Your task to perform on an android device: Open wifi settings Image 0: 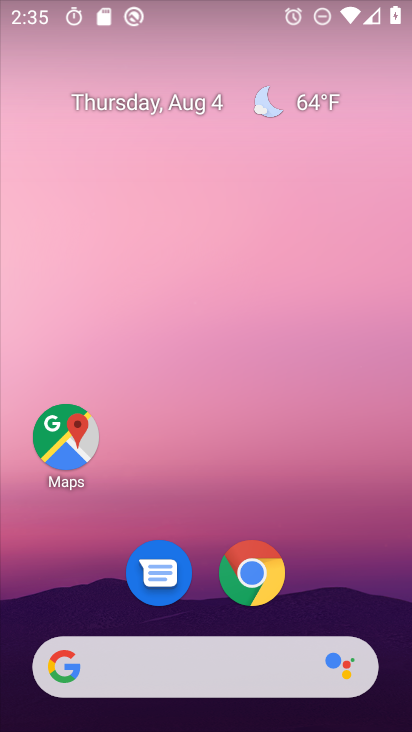
Step 0: drag from (359, 579) to (344, 64)
Your task to perform on an android device: Open wifi settings Image 1: 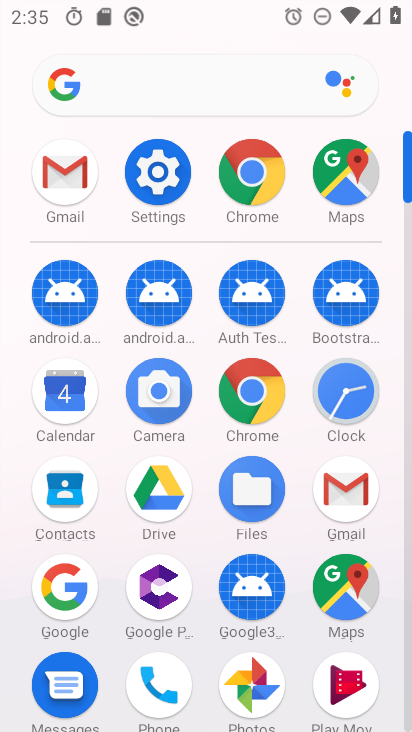
Step 1: click (158, 155)
Your task to perform on an android device: Open wifi settings Image 2: 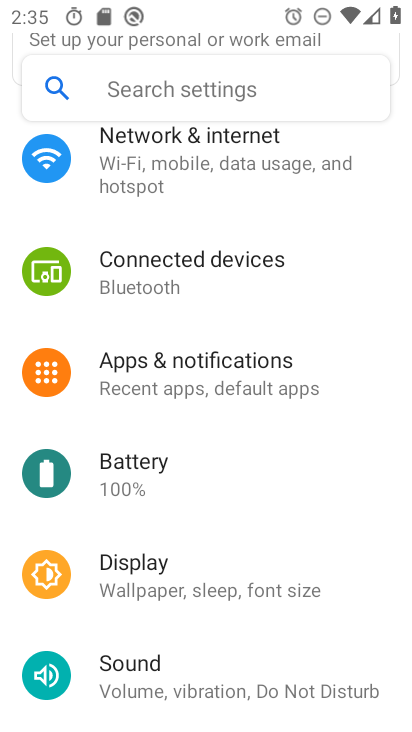
Step 2: click (158, 155)
Your task to perform on an android device: Open wifi settings Image 3: 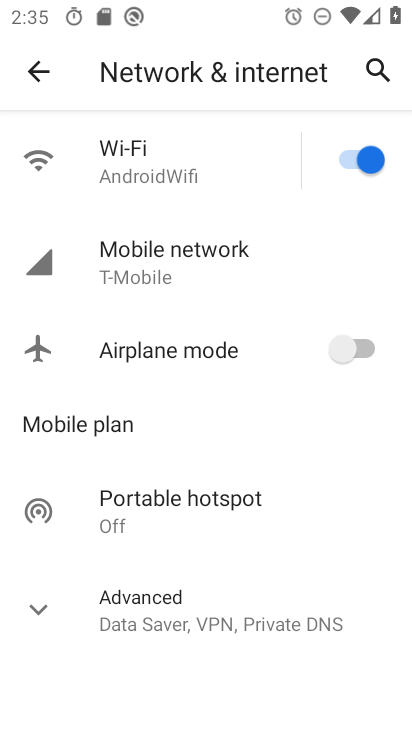
Step 3: click (217, 168)
Your task to perform on an android device: Open wifi settings Image 4: 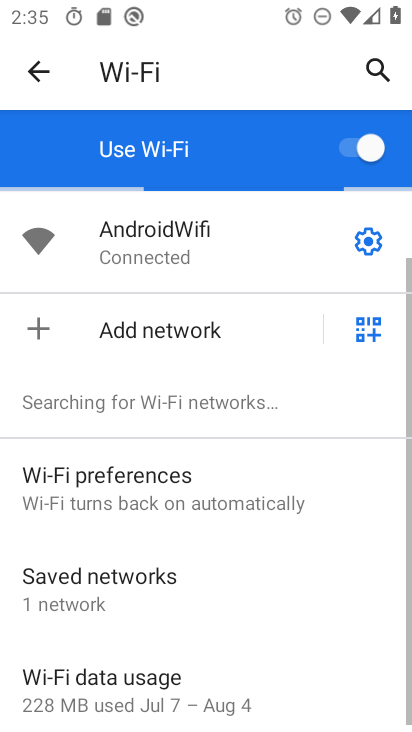
Step 4: click (370, 238)
Your task to perform on an android device: Open wifi settings Image 5: 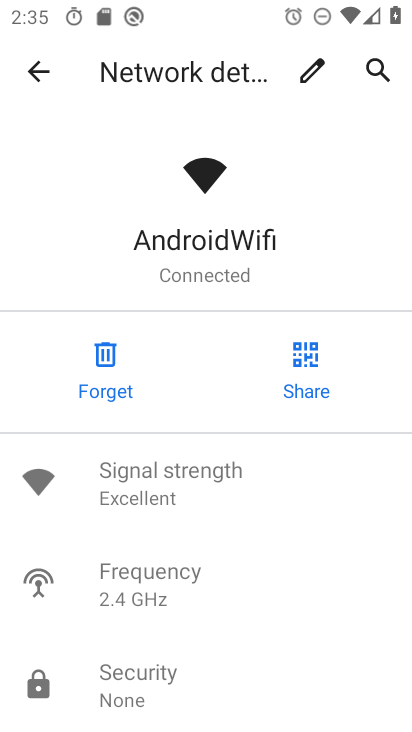
Step 5: task complete